Your task to perform on an android device: turn on location history Image 0: 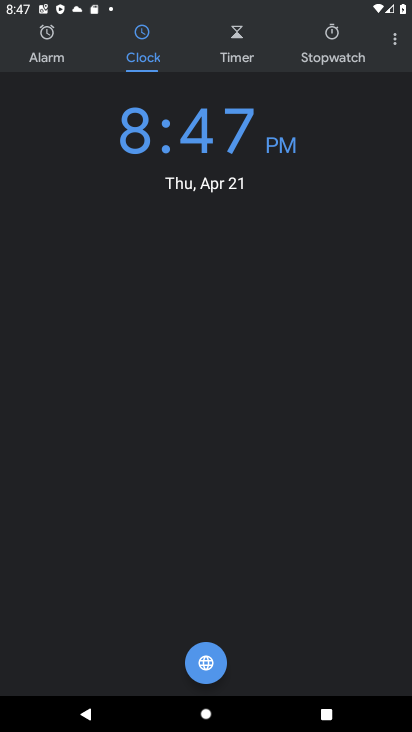
Step 0: press home button
Your task to perform on an android device: turn on location history Image 1: 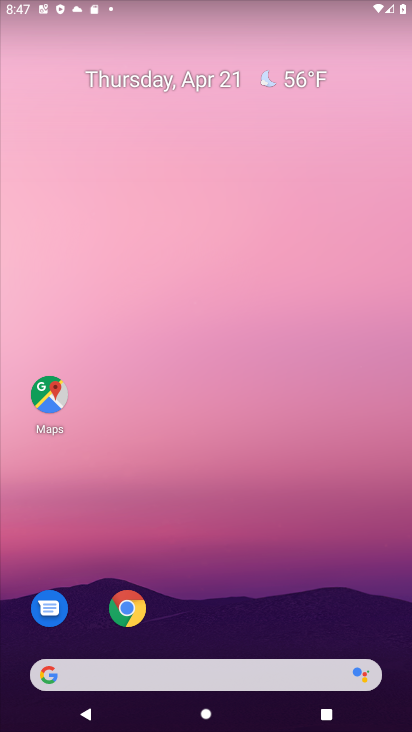
Step 1: drag from (281, 625) to (299, 153)
Your task to perform on an android device: turn on location history Image 2: 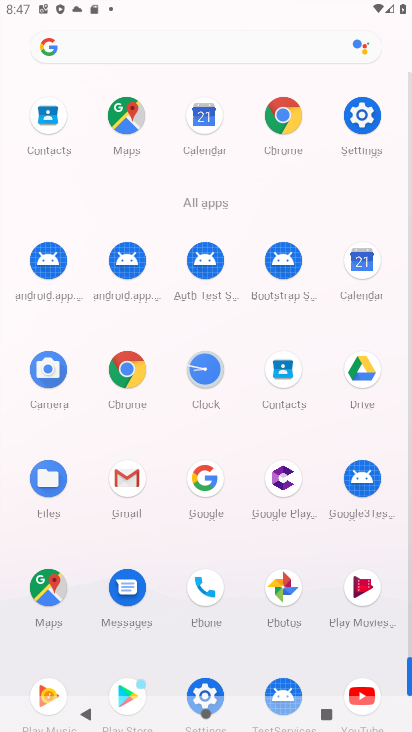
Step 2: click (362, 103)
Your task to perform on an android device: turn on location history Image 3: 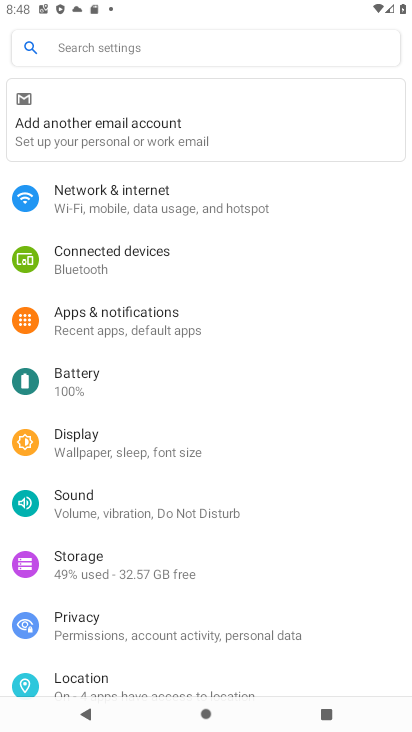
Step 3: drag from (284, 522) to (294, 359)
Your task to perform on an android device: turn on location history Image 4: 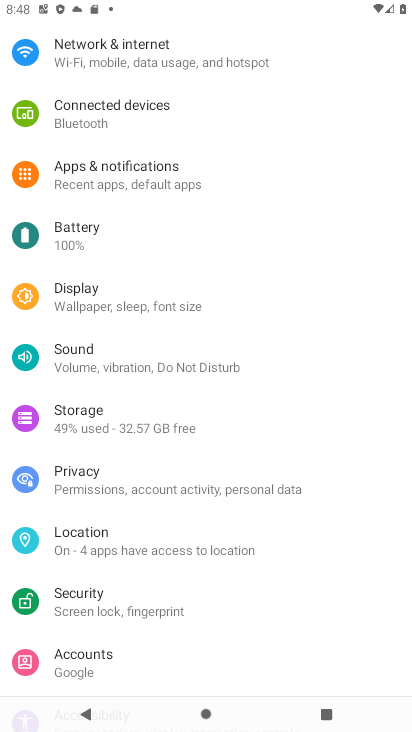
Step 4: click (179, 546)
Your task to perform on an android device: turn on location history Image 5: 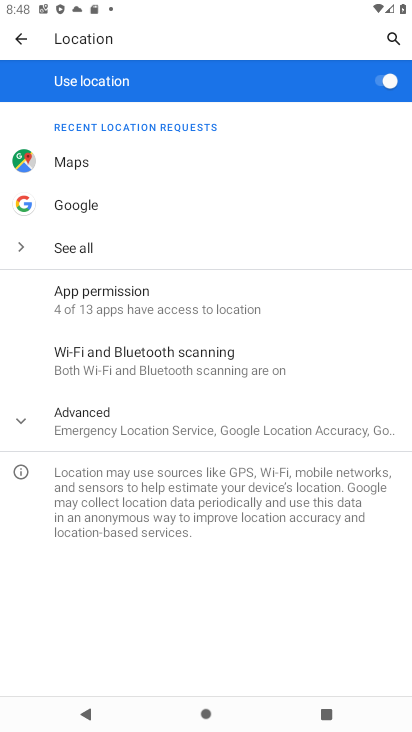
Step 5: click (15, 411)
Your task to perform on an android device: turn on location history Image 6: 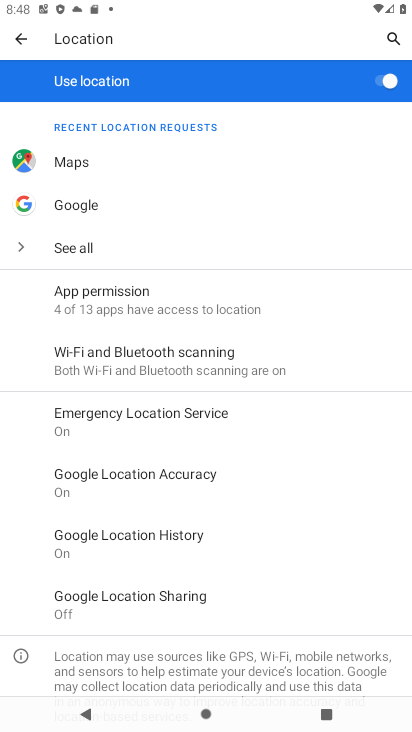
Step 6: task complete